Your task to perform on an android device: turn on wifi Image 0: 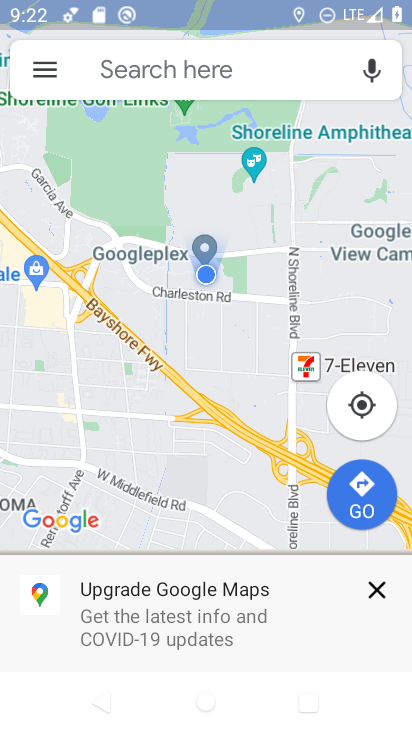
Step 0: press home button
Your task to perform on an android device: turn on wifi Image 1: 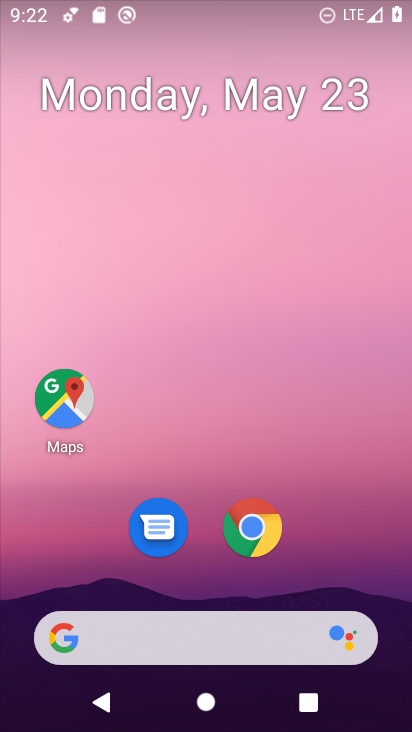
Step 1: drag from (209, 431) to (188, 41)
Your task to perform on an android device: turn on wifi Image 2: 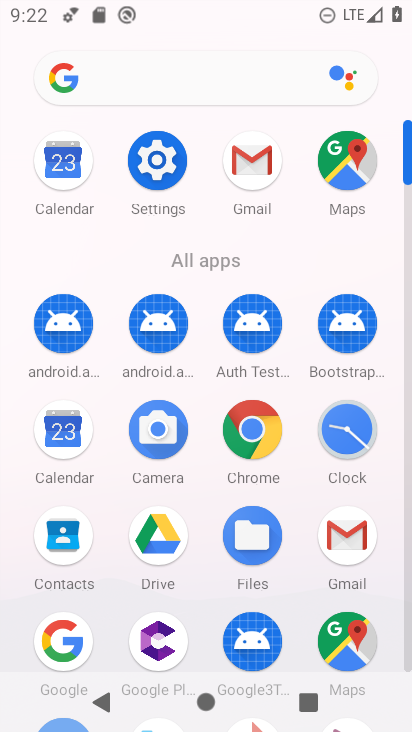
Step 2: click (165, 167)
Your task to perform on an android device: turn on wifi Image 3: 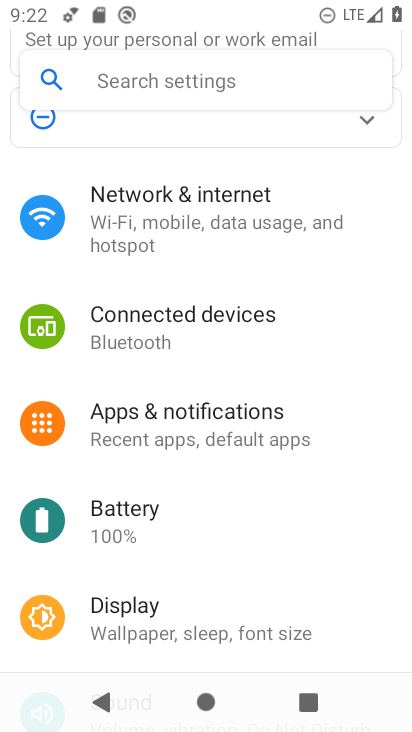
Step 3: click (199, 209)
Your task to perform on an android device: turn on wifi Image 4: 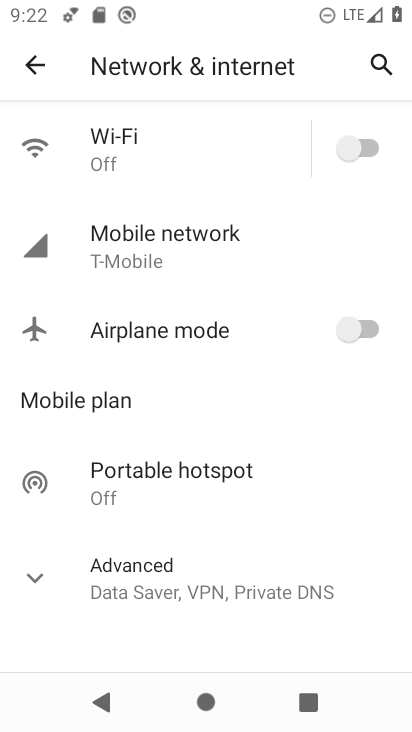
Step 4: click (361, 137)
Your task to perform on an android device: turn on wifi Image 5: 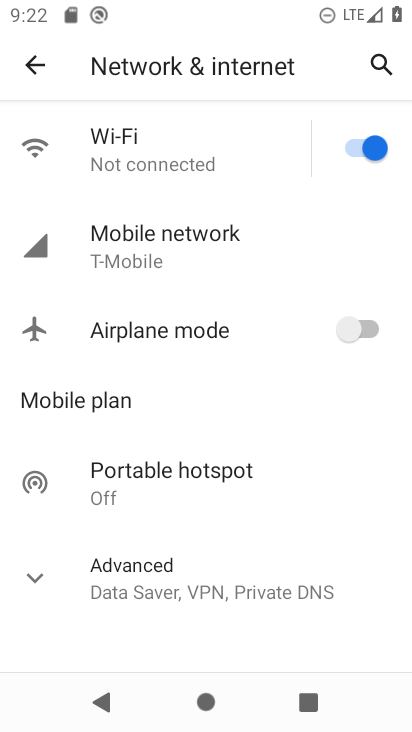
Step 5: task complete